Your task to perform on an android device: Open Google Chrome and open the bookmarks view Image 0: 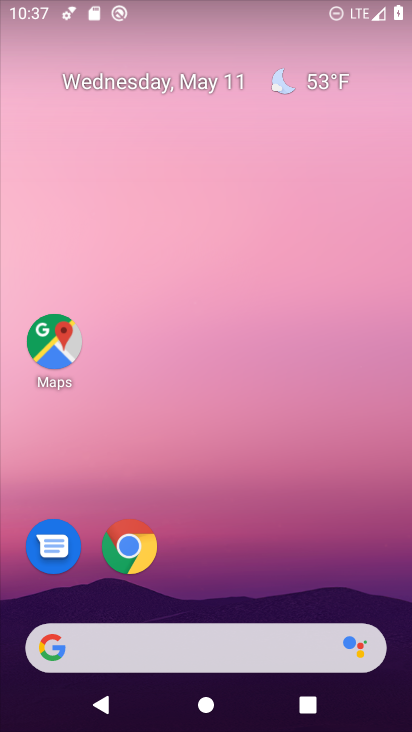
Step 0: drag from (399, 628) to (243, 30)
Your task to perform on an android device: Open Google Chrome and open the bookmarks view Image 1: 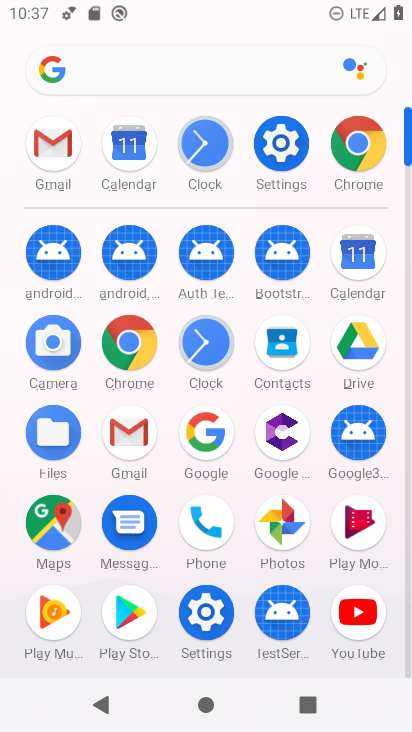
Step 1: click (129, 351)
Your task to perform on an android device: Open Google Chrome and open the bookmarks view Image 2: 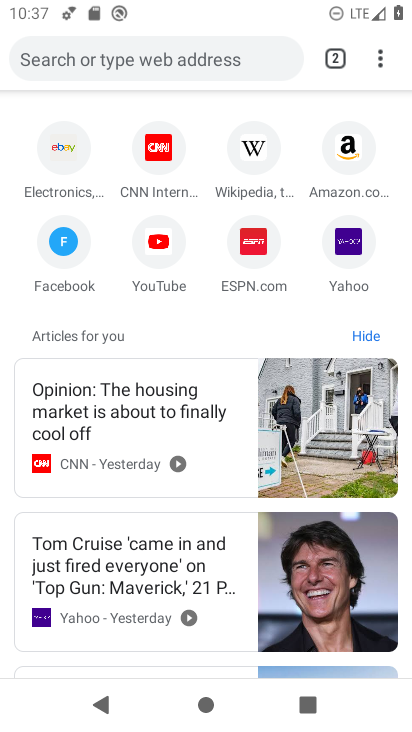
Step 2: click (382, 51)
Your task to perform on an android device: Open Google Chrome and open the bookmarks view Image 3: 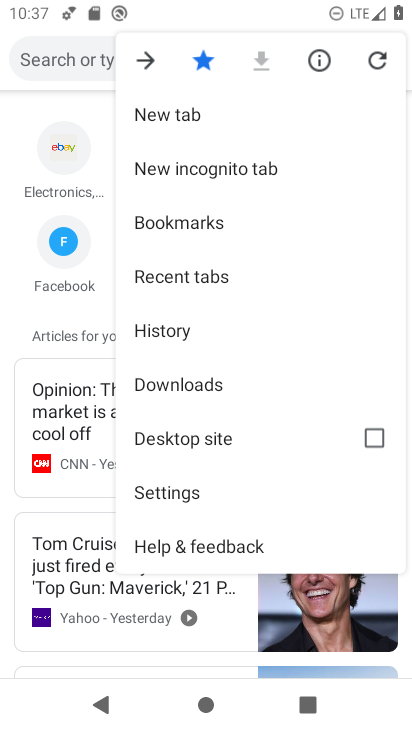
Step 3: click (248, 219)
Your task to perform on an android device: Open Google Chrome and open the bookmarks view Image 4: 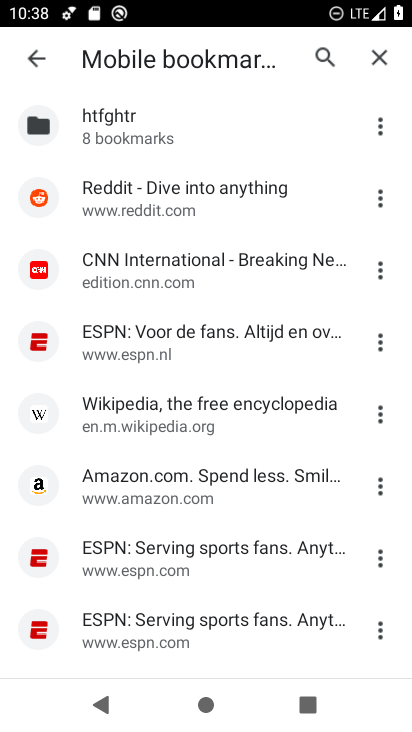
Step 4: task complete